Your task to perform on an android device: Add logitech g pro to the cart on newegg.com, then select checkout. Image 0: 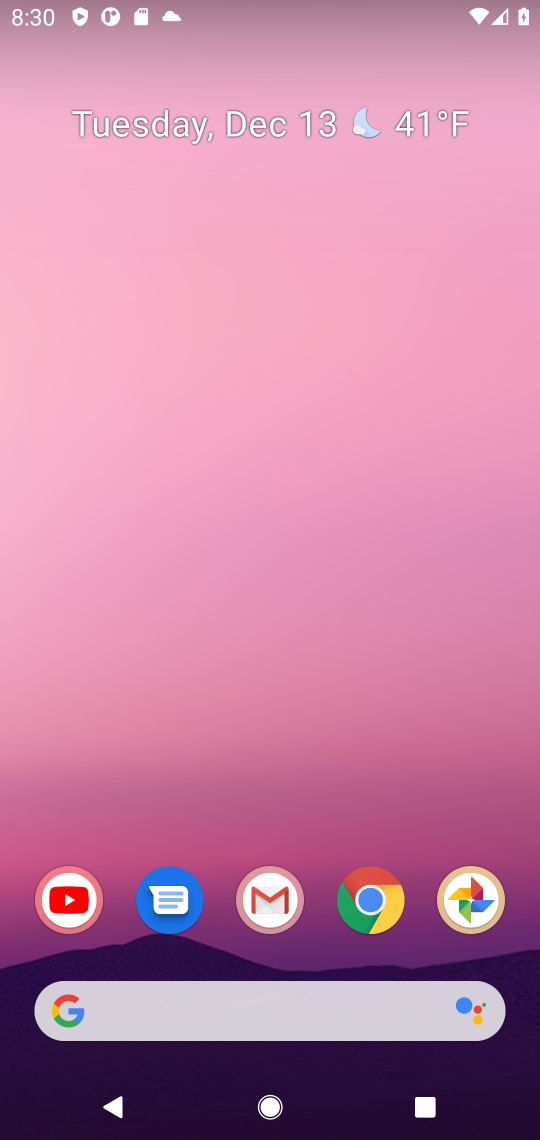
Step 0: click (383, 891)
Your task to perform on an android device: Add logitech g pro to the cart on newegg.com, then select checkout. Image 1: 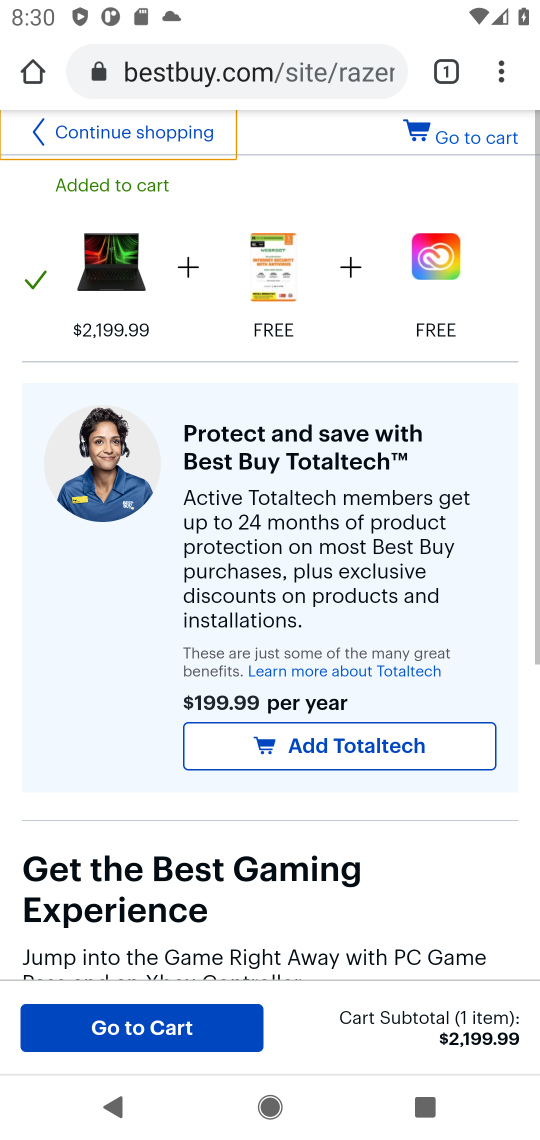
Step 1: click (249, 64)
Your task to perform on an android device: Add logitech g pro to the cart on newegg.com, then select checkout. Image 2: 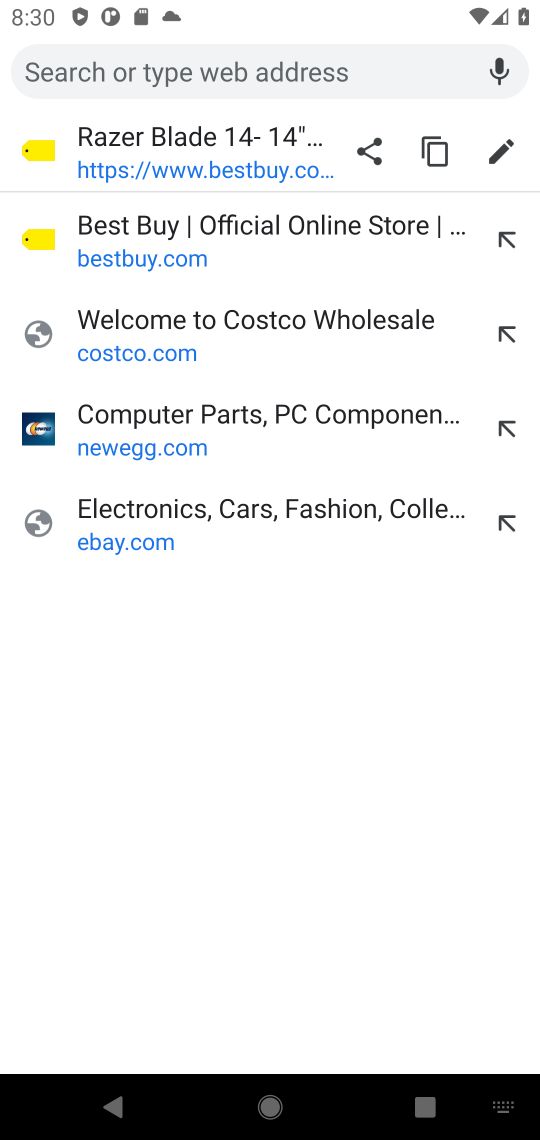
Step 2: click (191, 431)
Your task to perform on an android device: Add logitech g pro to the cart on newegg.com, then select checkout. Image 3: 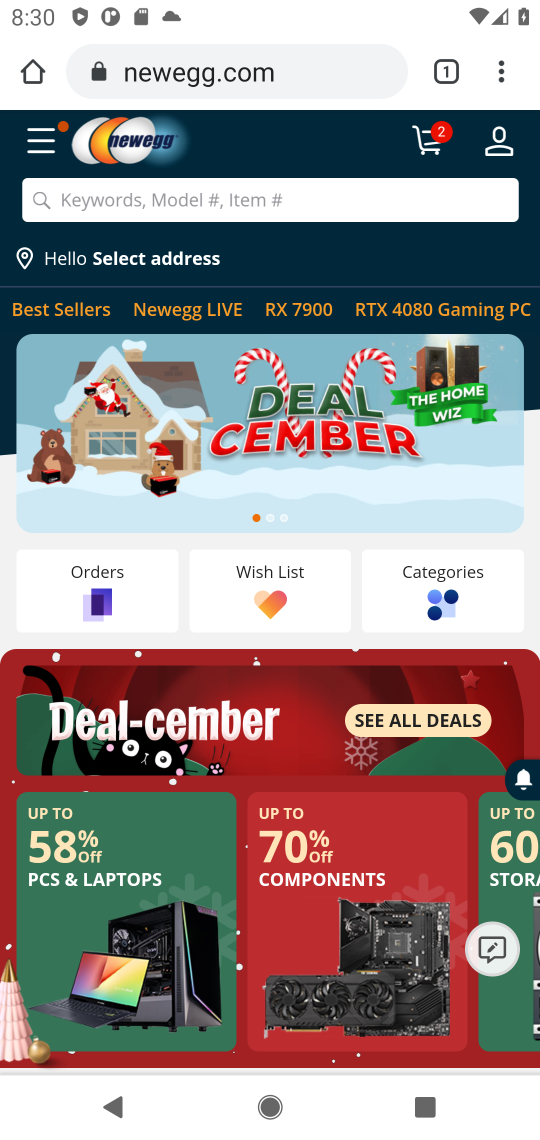
Step 3: click (284, 197)
Your task to perform on an android device: Add logitech g pro to the cart on newegg.com, then select checkout. Image 4: 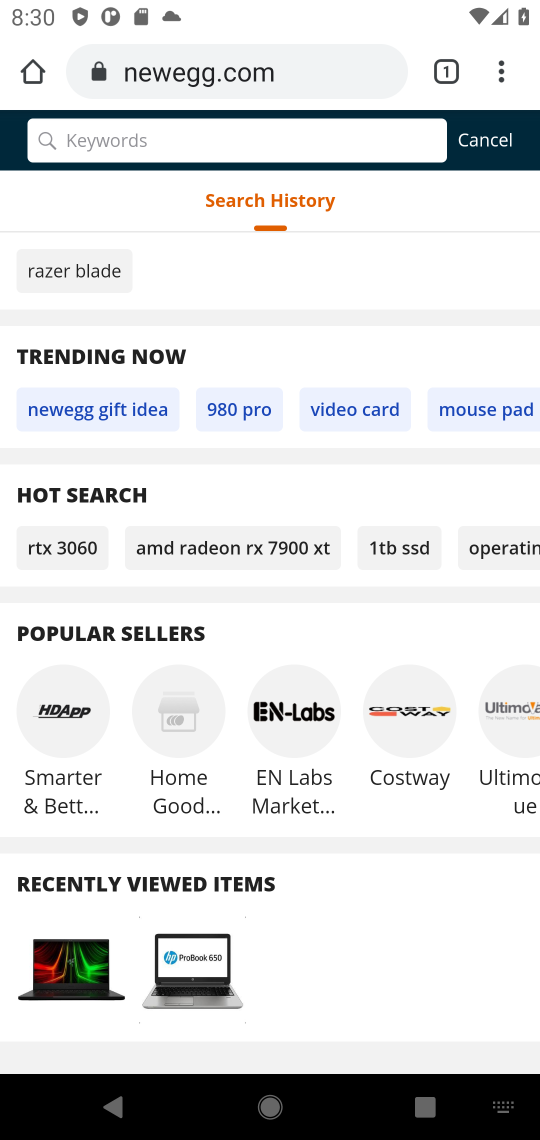
Step 4: type "logitech g pro"
Your task to perform on an android device: Add logitech g pro to the cart on newegg.com, then select checkout. Image 5: 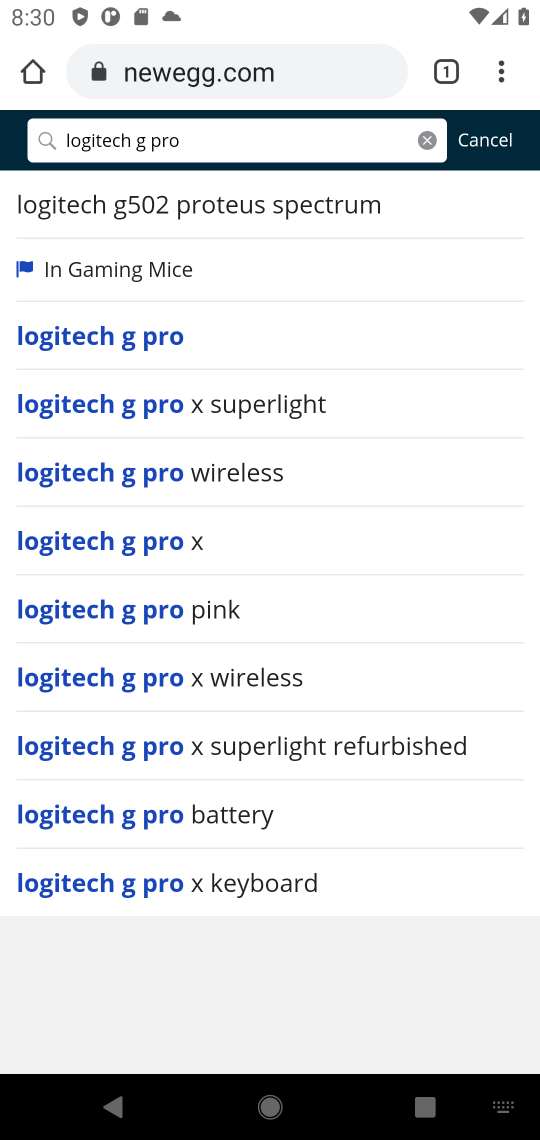
Step 5: click (143, 213)
Your task to perform on an android device: Add logitech g pro to the cart on newegg.com, then select checkout. Image 6: 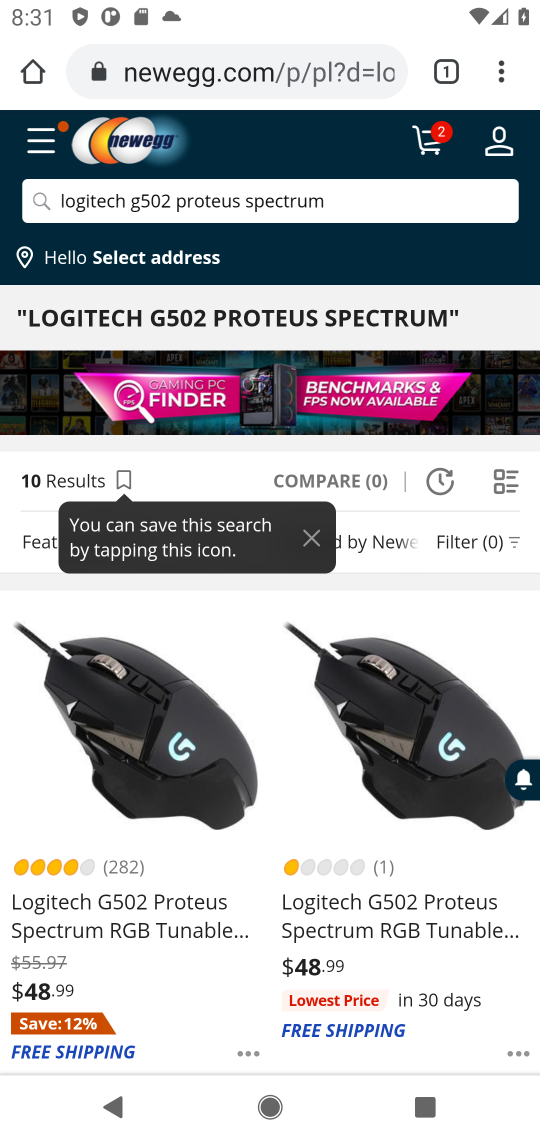
Step 6: click (194, 763)
Your task to perform on an android device: Add logitech g pro to the cart on newegg.com, then select checkout. Image 7: 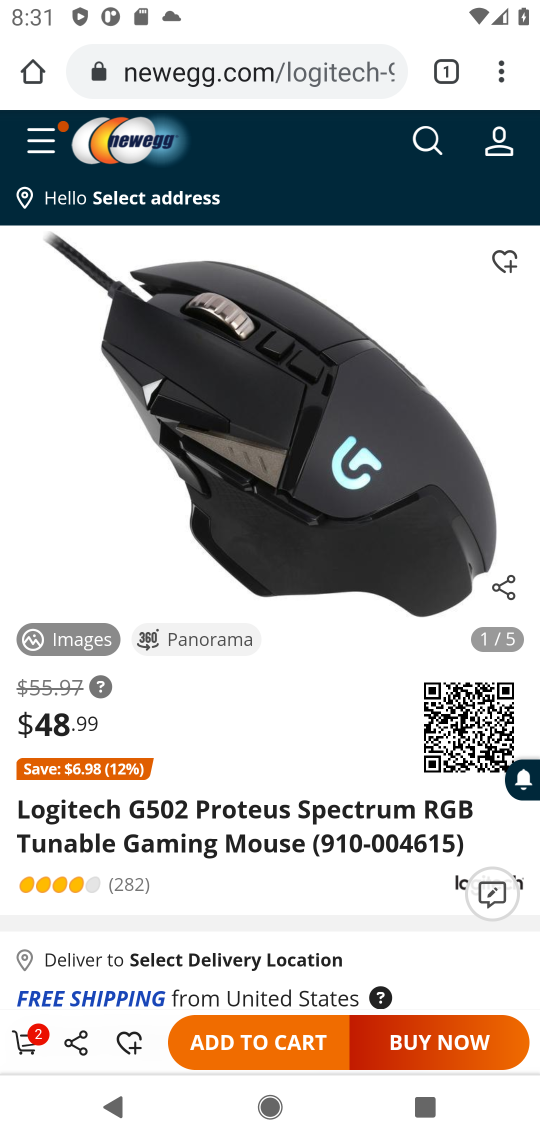
Step 7: click (261, 1046)
Your task to perform on an android device: Add logitech g pro to the cart on newegg.com, then select checkout. Image 8: 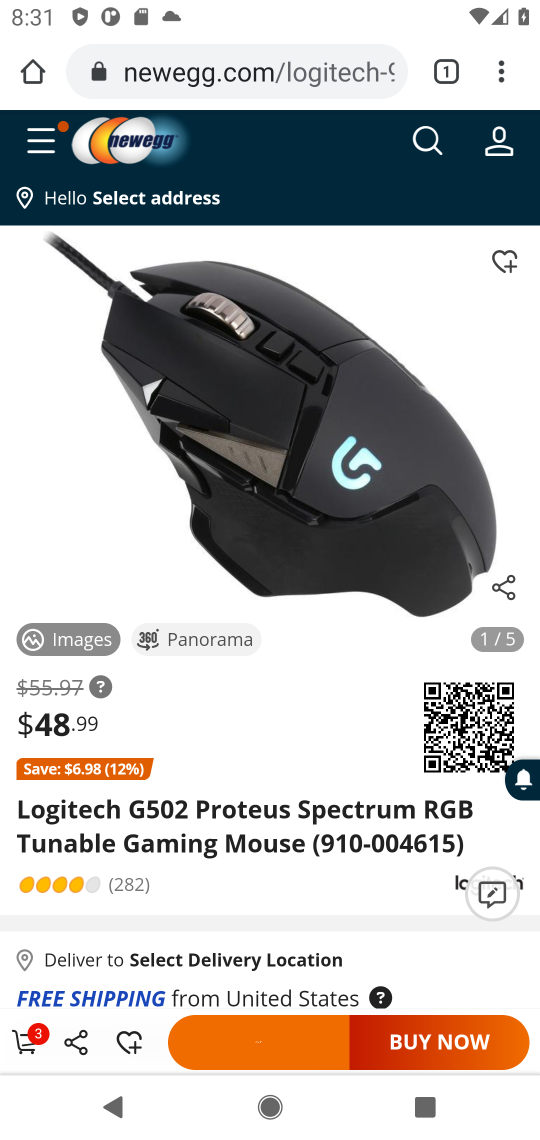
Step 8: task complete